Your task to perform on an android device: Go to internet settings Image 0: 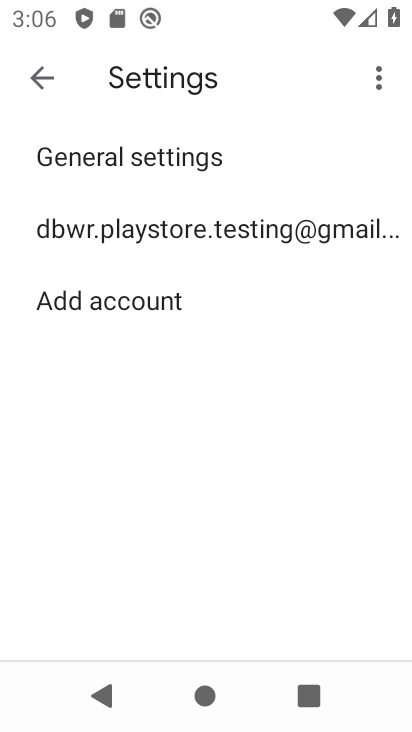
Step 0: press home button
Your task to perform on an android device: Go to internet settings Image 1: 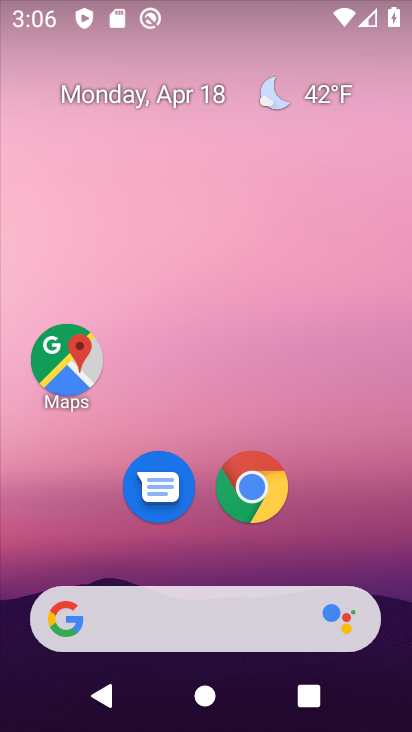
Step 1: drag from (212, 553) to (214, 19)
Your task to perform on an android device: Go to internet settings Image 2: 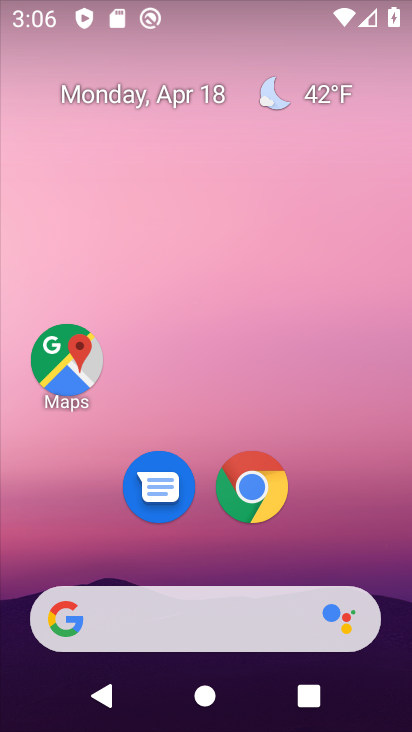
Step 2: drag from (205, 568) to (206, 41)
Your task to perform on an android device: Go to internet settings Image 3: 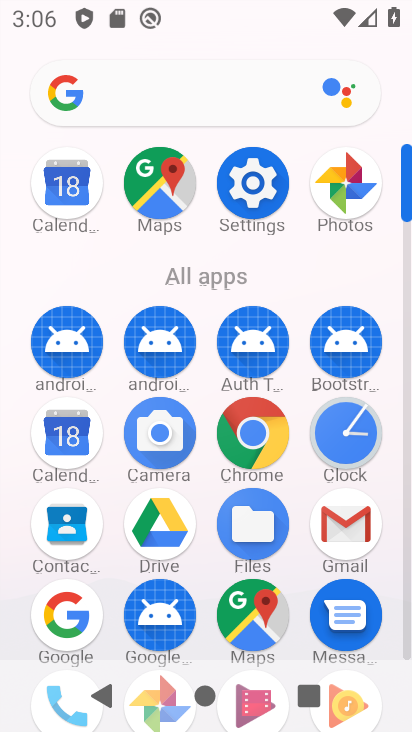
Step 3: click (253, 180)
Your task to perform on an android device: Go to internet settings Image 4: 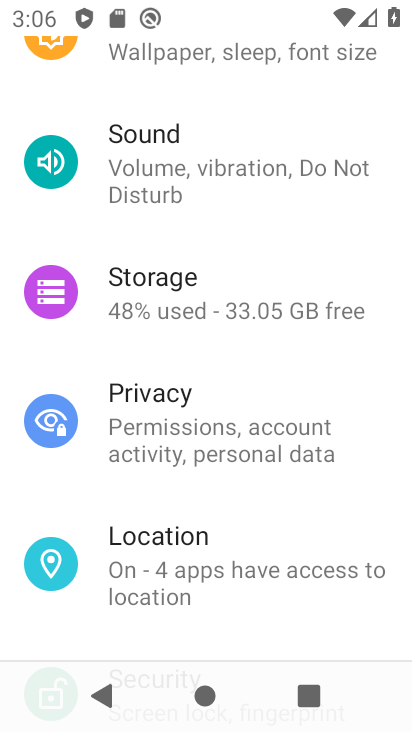
Step 4: drag from (206, 128) to (219, 541)
Your task to perform on an android device: Go to internet settings Image 5: 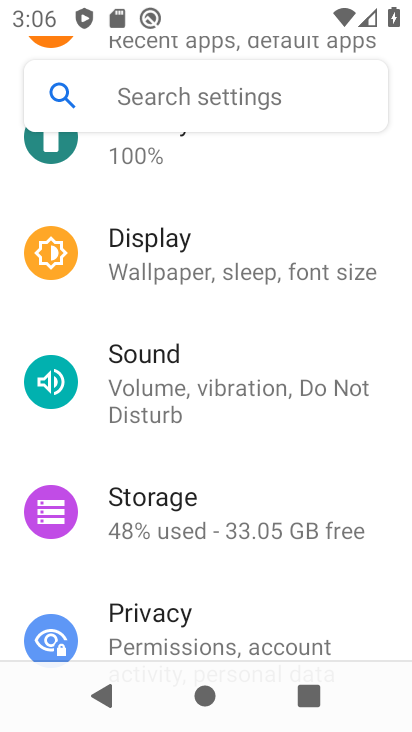
Step 5: drag from (203, 265) to (209, 566)
Your task to perform on an android device: Go to internet settings Image 6: 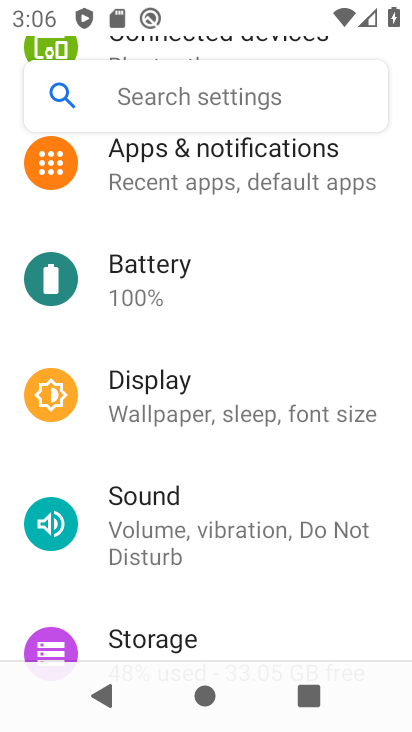
Step 6: drag from (244, 284) to (244, 642)
Your task to perform on an android device: Go to internet settings Image 7: 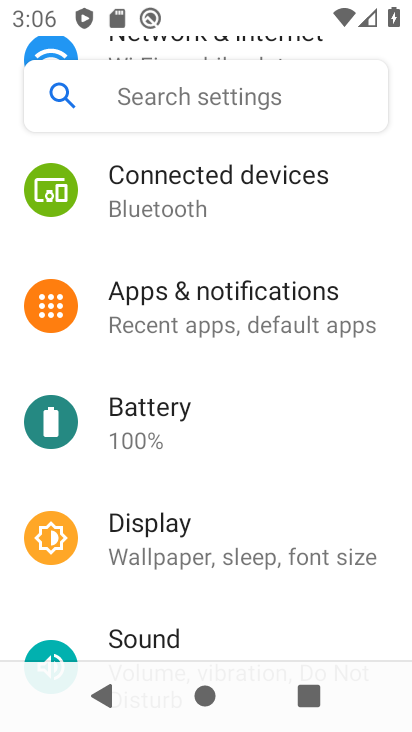
Step 7: drag from (241, 408) to (217, 633)
Your task to perform on an android device: Go to internet settings Image 8: 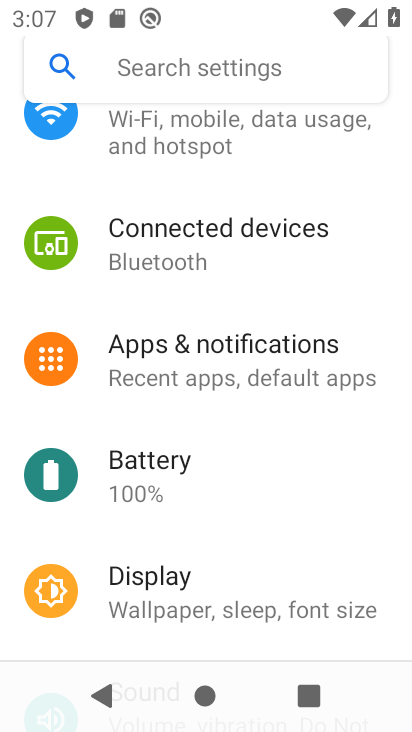
Step 8: click (165, 139)
Your task to perform on an android device: Go to internet settings Image 9: 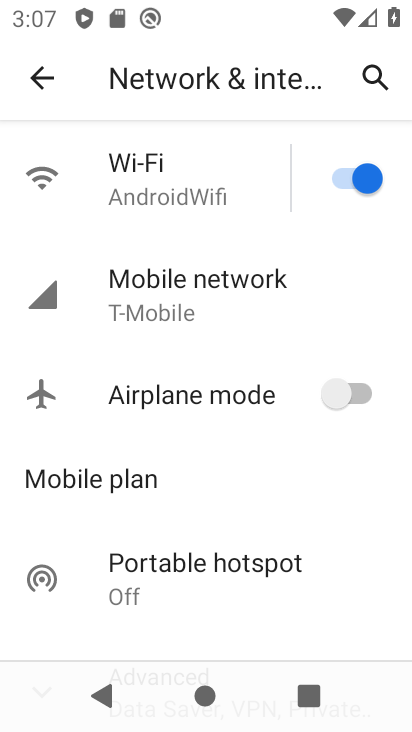
Step 9: task complete